Your task to perform on an android device: Open calendar and show me the third week of next month Image 0: 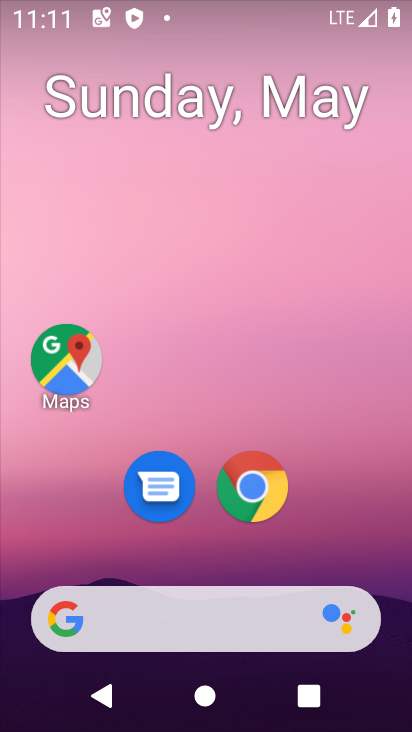
Step 0: drag from (295, 553) to (303, 171)
Your task to perform on an android device: Open calendar and show me the third week of next month Image 1: 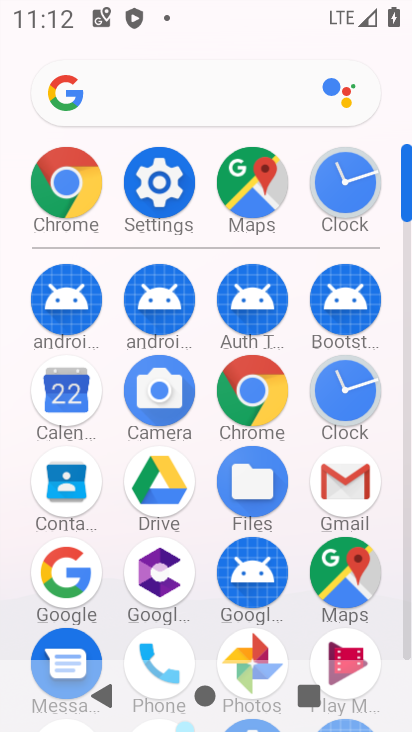
Step 1: click (54, 409)
Your task to perform on an android device: Open calendar and show me the third week of next month Image 2: 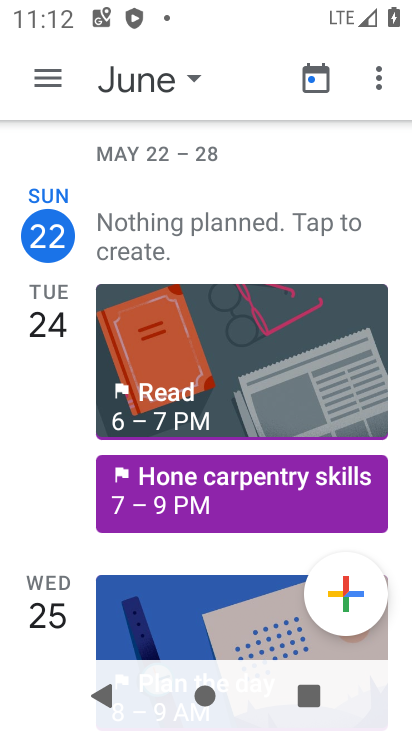
Step 2: click (137, 85)
Your task to perform on an android device: Open calendar and show me the third week of next month Image 3: 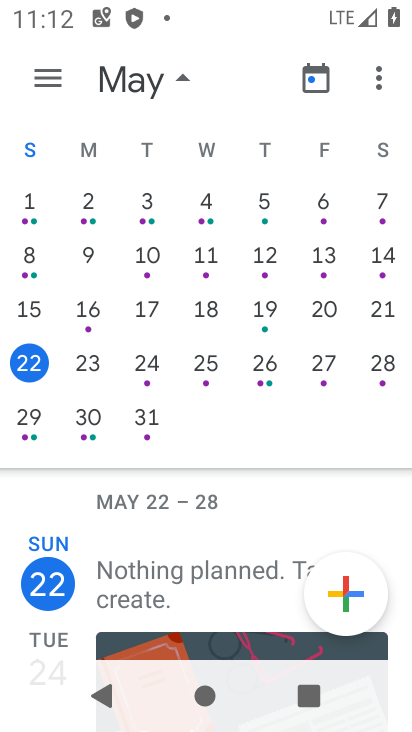
Step 3: click (34, 88)
Your task to perform on an android device: Open calendar and show me the third week of next month Image 4: 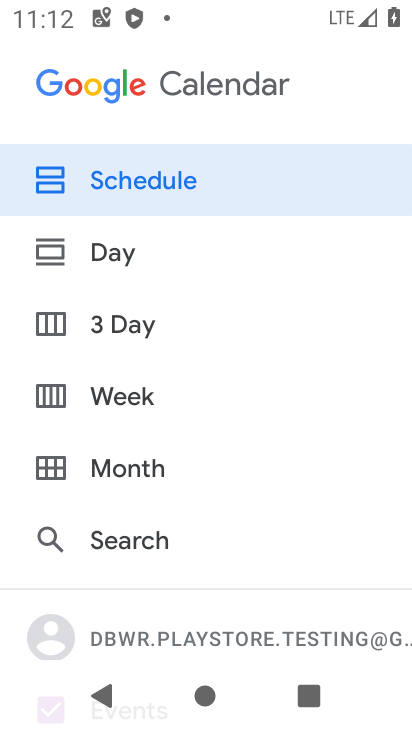
Step 4: click (108, 409)
Your task to perform on an android device: Open calendar and show me the third week of next month Image 5: 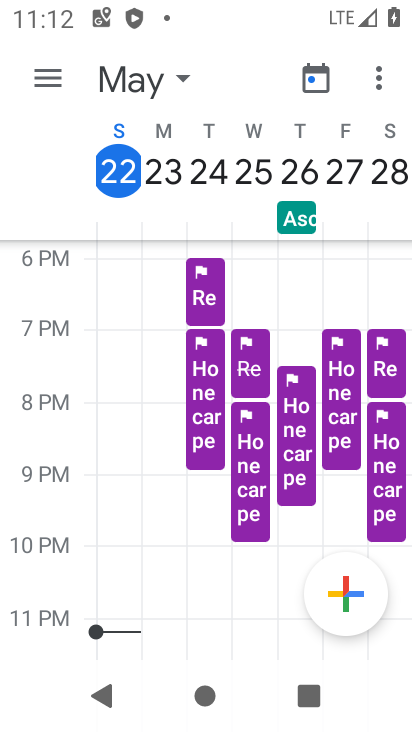
Step 5: click (135, 82)
Your task to perform on an android device: Open calendar and show me the third week of next month Image 6: 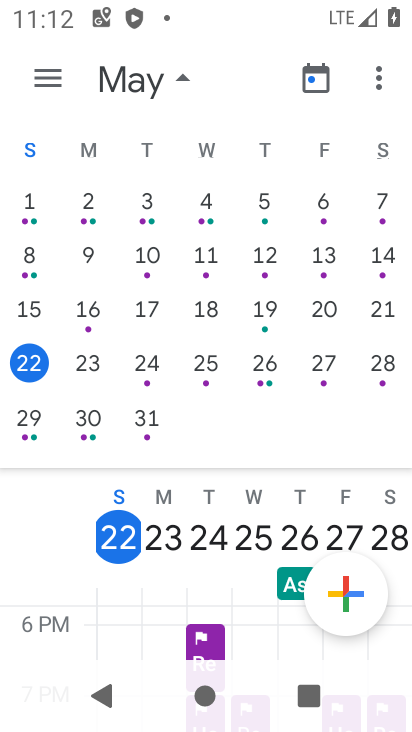
Step 6: drag from (296, 261) to (11, 244)
Your task to perform on an android device: Open calendar and show me the third week of next month Image 7: 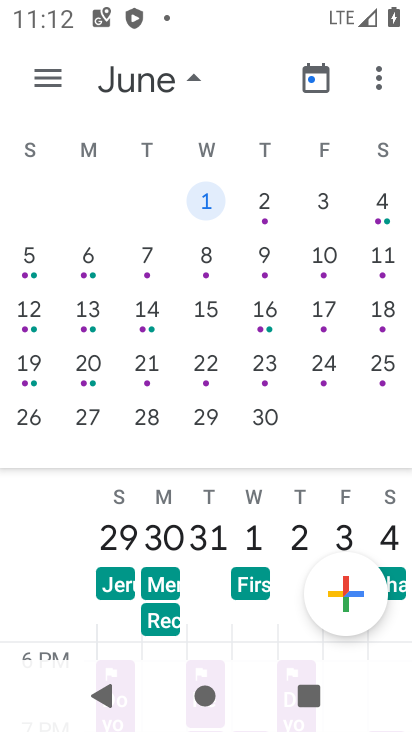
Step 7: click (29, 363)
Your task to perform on an android device: Open calendar and show me the third week of next month Image 8: 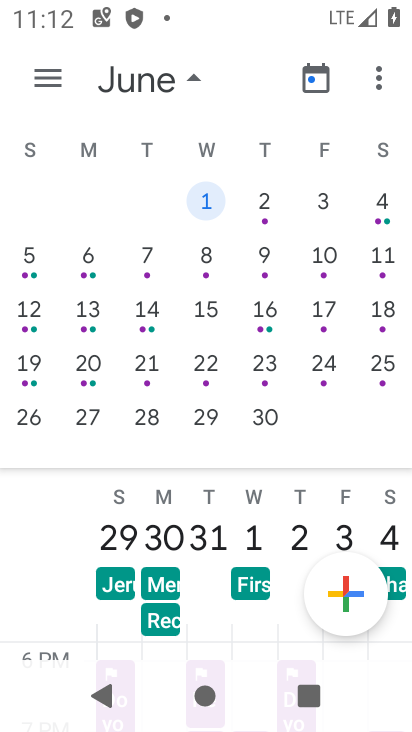
Step 8: click (29, 363)
Your task to perform on an android device: Open calendar and show me the third week of next month Image 9: 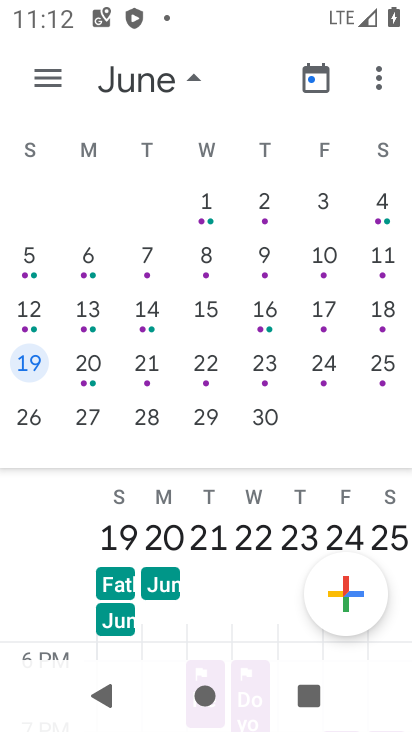
Step 9: task complete